Your task to perform on an android device: make emails show in primary in the gmail app Image 0: 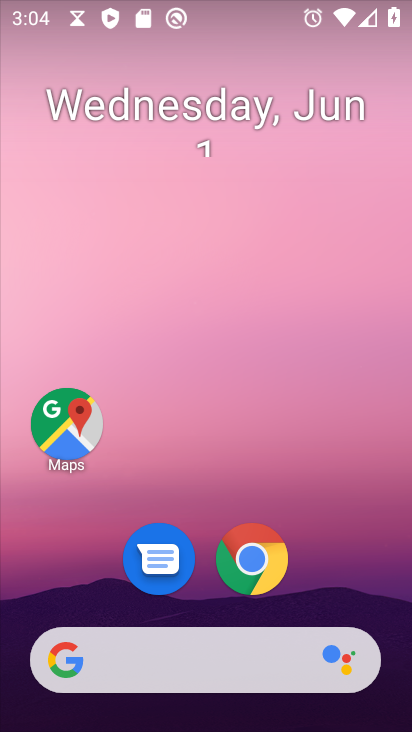
Step 0: drag from (349, 594) to (194, 0)
Your task to perform on an android device: make emails show in primary in the gmail app Image 1: 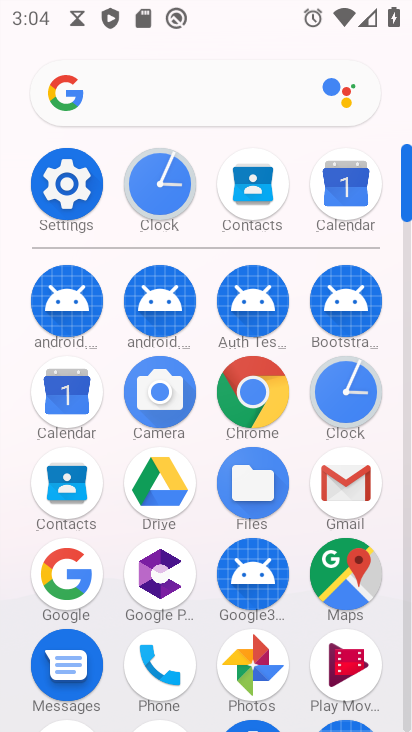
Step 1: click (332, 483)
Your task to perform on an android device: make emails show in primary in the gmail app Image 2: 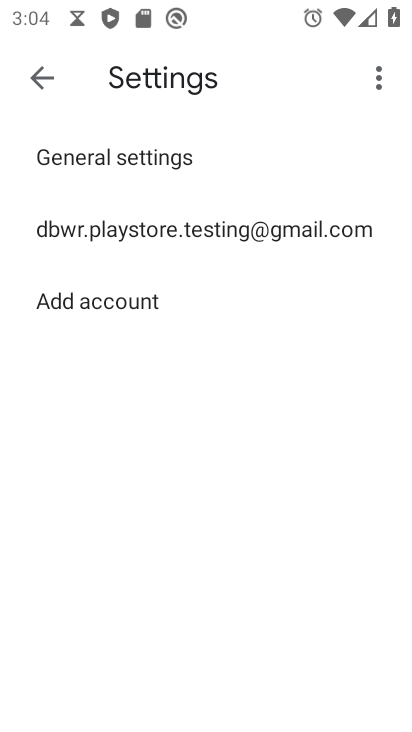
Step 2: click (97, 213)
Your task to perform on an android device: make emails show in primary in the gmail app Image 3: 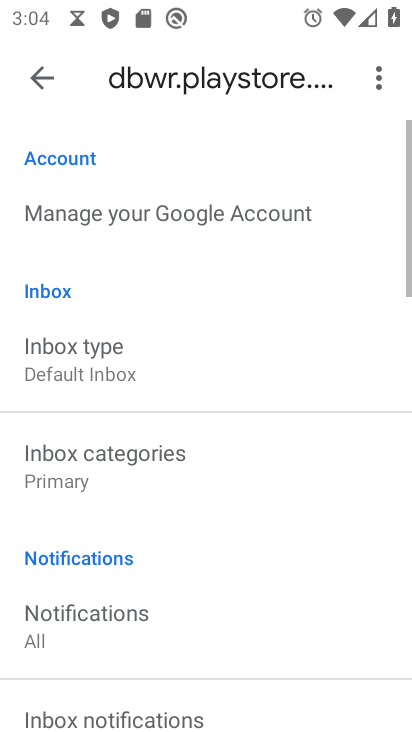
Step 3: click (113, 367)
Your task to perform on an android device: make emails show in primary in the gmail app Image 4: 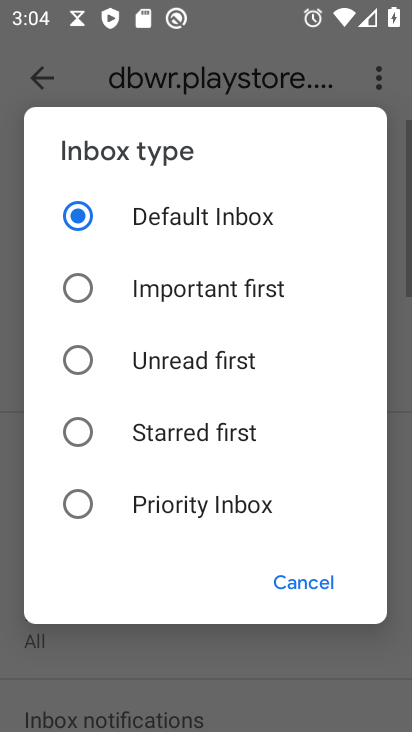
Step 4: click (195, 218)
Your task to perform on an android device: make emails show in primary in the gmail app Image 5: 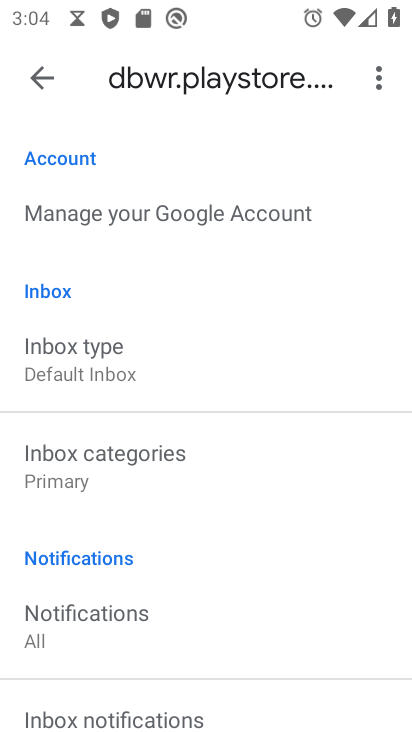
Step 5: task complete